Your task to perform on an android device: toggle wifi Image 0: 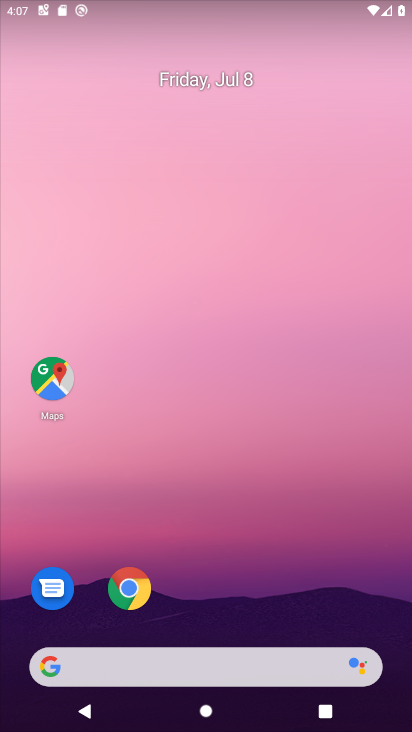
Step 0: drag from (176, 633) to (260, 6)
Your task to perform on an android device: toggle wifi Image 1: 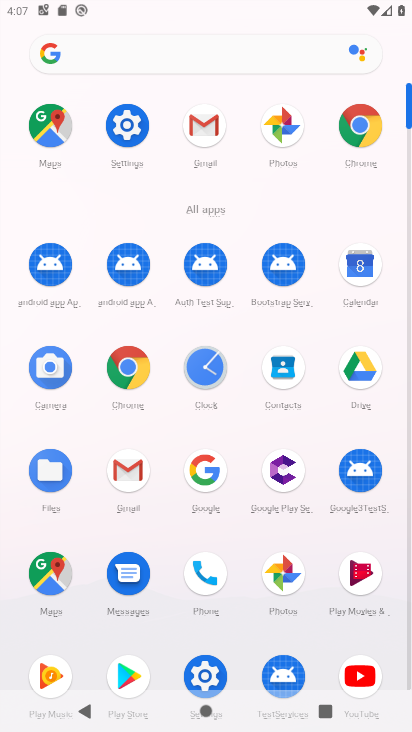
Step 1: click (134, 128)
Your task to perform on an android device: toggle wifi Image 2: 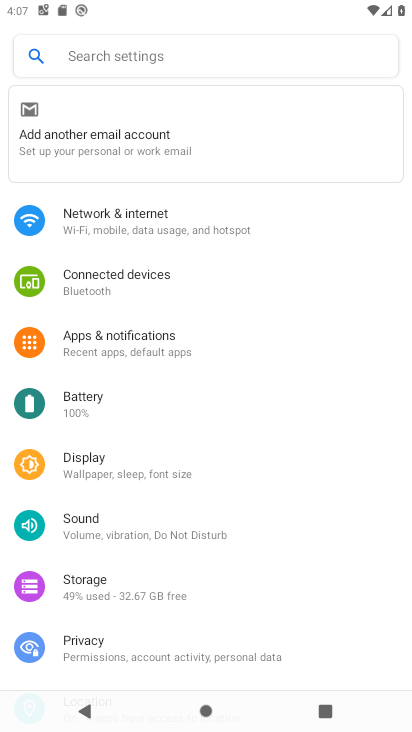
Step 2: click (146, 233)
Your task to perform on an android device: toggle wifi Image 3: 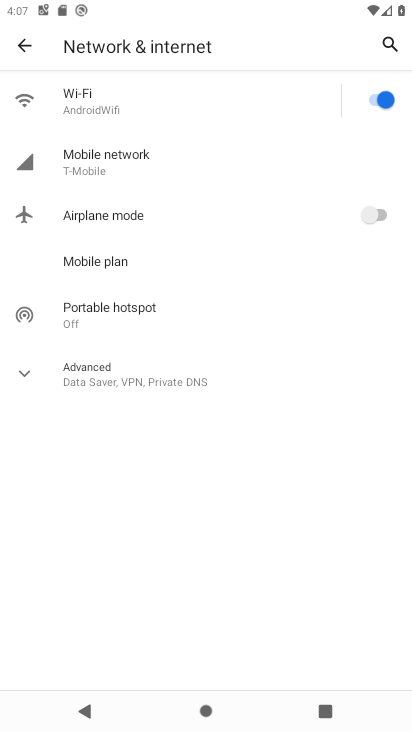
Step 3: click (357, 92)
Your task to perform on an android device: toggle wifi Image 4: 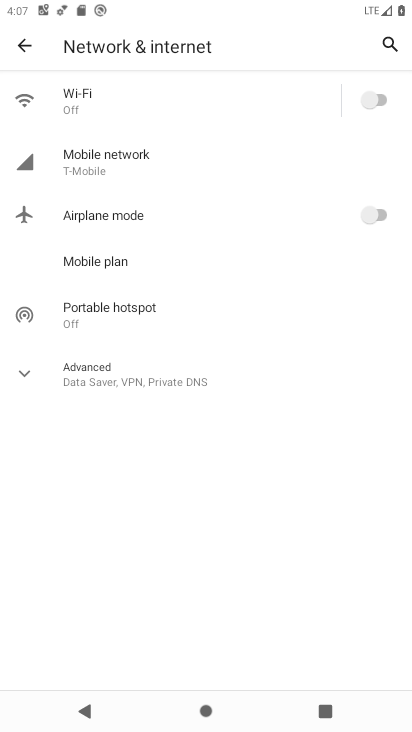
Step 4: task complete